Your task to perform on an android device: snooze an email in the gmail app Image 0: 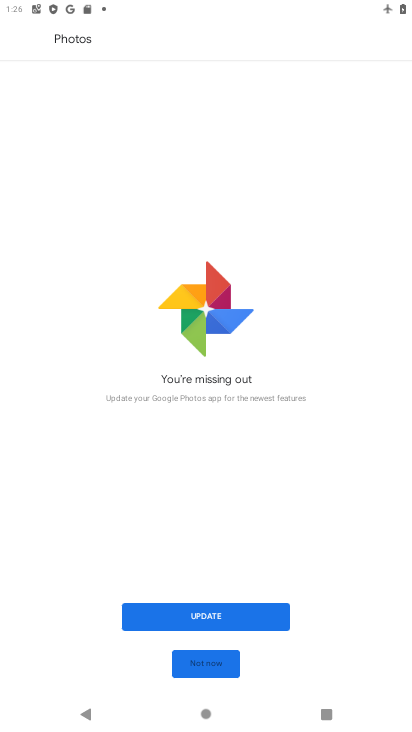
Step 0: press home button
Your task to perform on an android device: snooze an email in the gmail app Image 1: 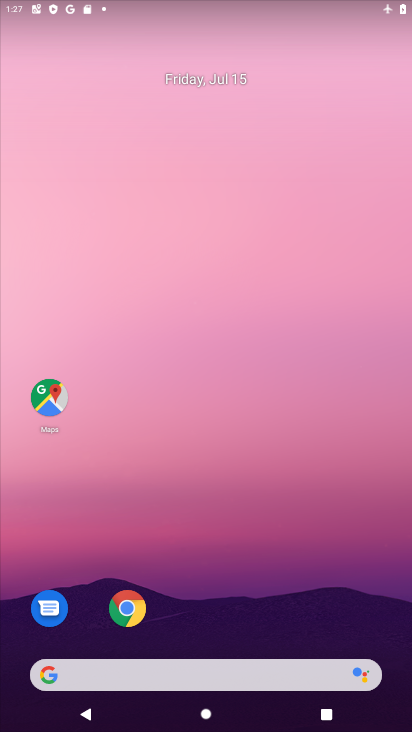
Step 1: drag from (162, 713) to (113, 31)
Your task to perform on an android device: snooze an email in the gmail app Image 2: 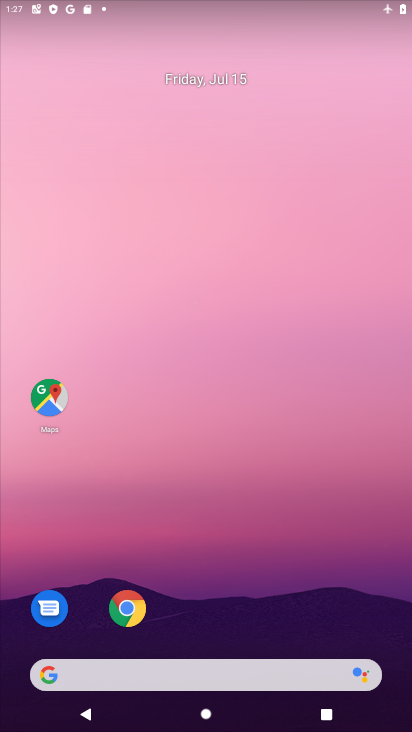
Step 2: drag from (152, 706) to (206, 147)
Your task to perform on an android device: snooze an email in the gmail app Image 3: 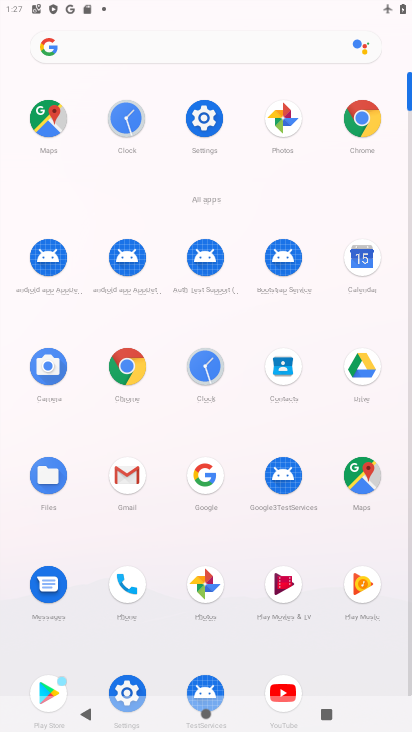
Step 3: click (130, 473)
Your task to perform on an android device: snooze an email in the gmail app Image 4: 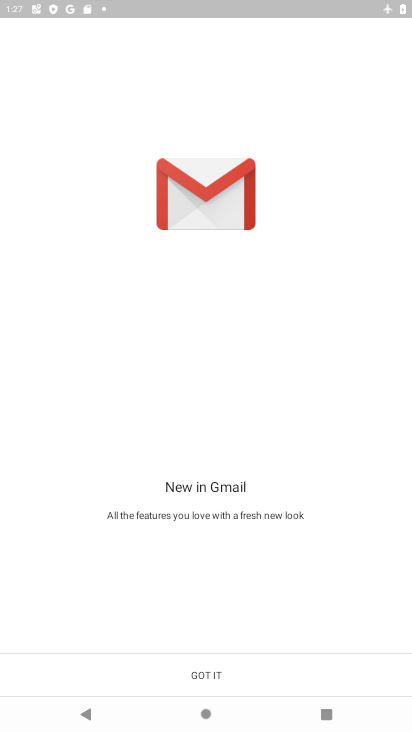
Step 4: click (200, 679)
Your task to perform on an android device: snooze an email in the gmail app Image 5: 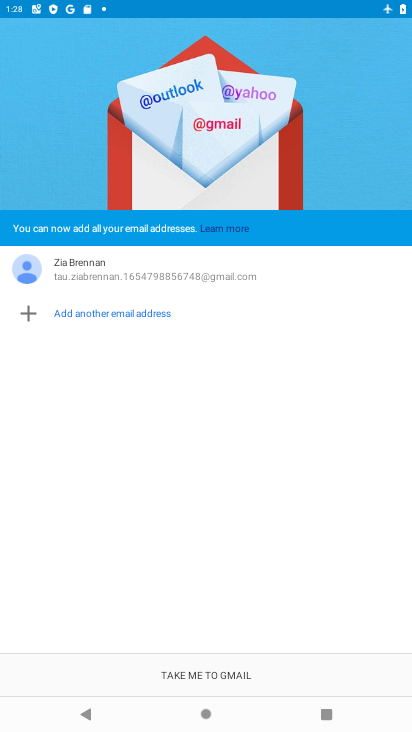
Step 5: click (257, 672)
Your task to perform on an android device: snooze an email in the gmail app Image 6: 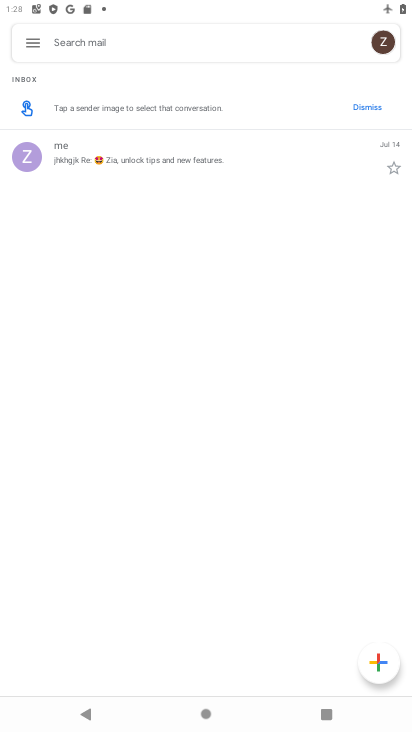
Step 6: click (223, 155)
Your task to perform on an android device: snooze an email in the gmail app Image 7: 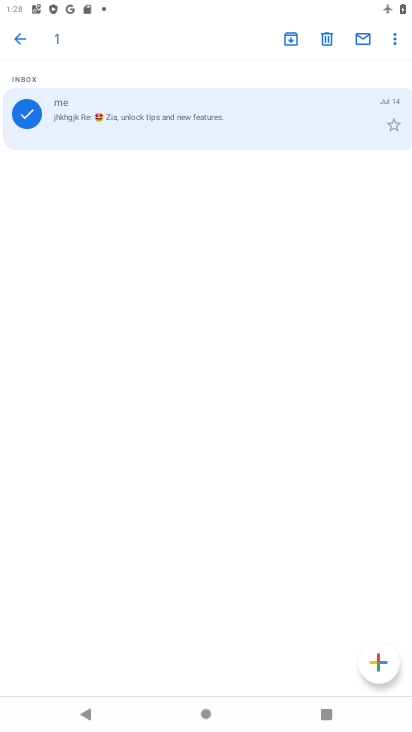
Step 7: click (394, 40)
Your task to perform on an android device: snooze an email in the gmail app Image 8: 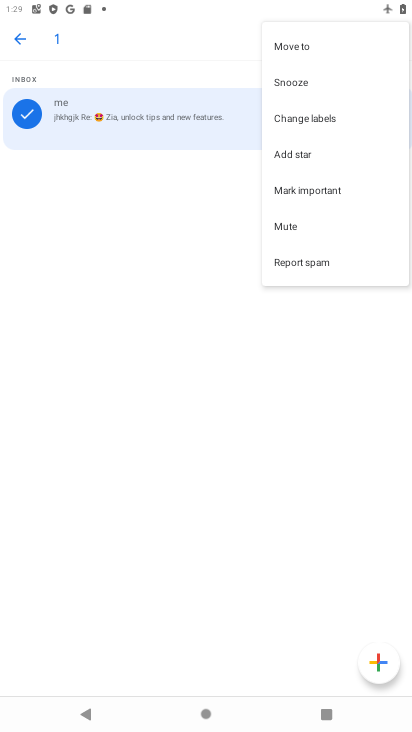
Step 8: click (323, 82)
Your task to perform on an android device: snooze an email in the gmail app Image 9: 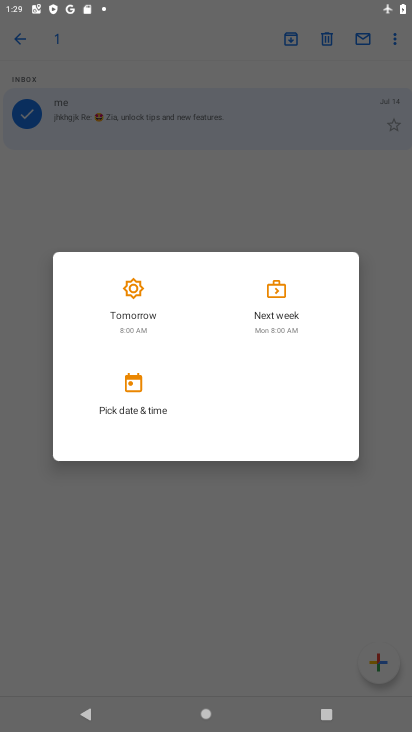
Step 9: click (126, 303)
Your task to perform on an android device: snooze an email in the gmail app Image 10: 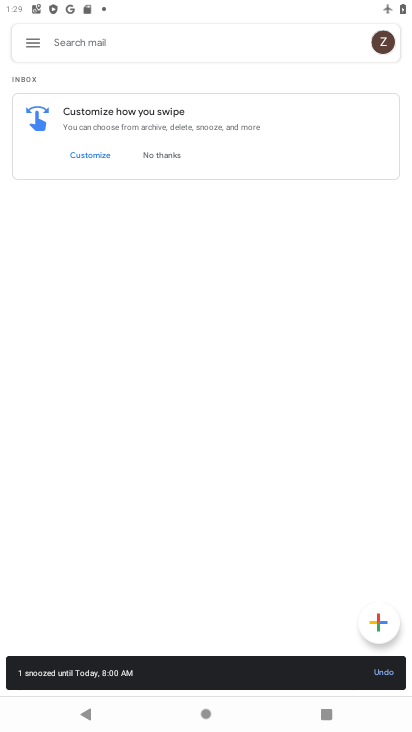
Step 10: task complete